Your task to perform on an android device: read, delete, or share a saved page in the chrome app Image 0: 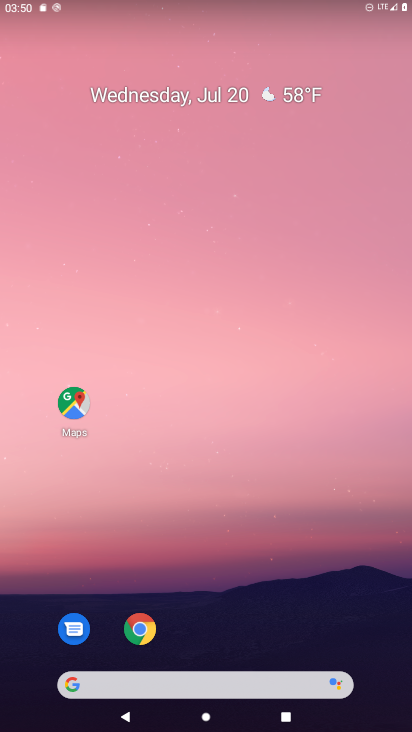
Step 0: drag from (344, 580) to (356, 51)
Your task to perform on an android device: read, delete, or share a saved page in the chrome app Image 1: 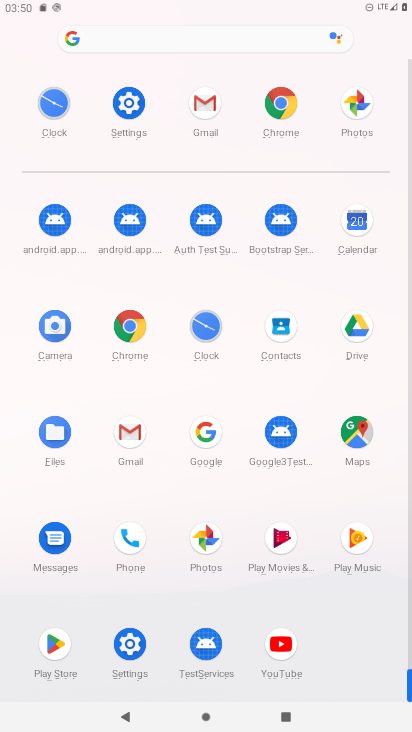
Step 1: click (123, 319)
Your task to perform on an android device: read, delete, or share a saved page in the chrome app Image 2: 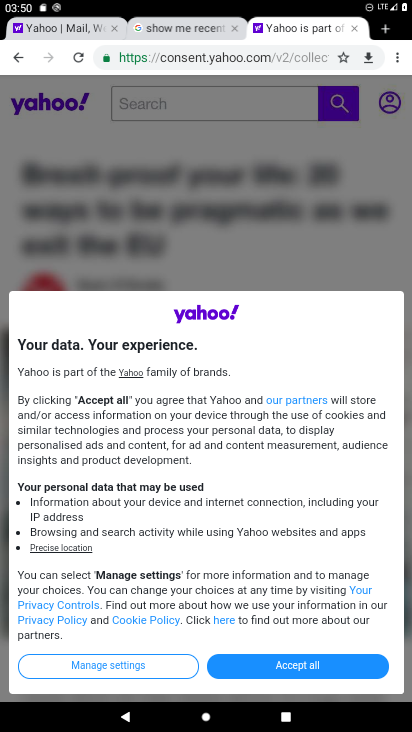
Step 2: drag from (299, 482) to (317, 141)
Your task to perform on an android device: read, delete, or share a saved page in the chrome app Image 3: 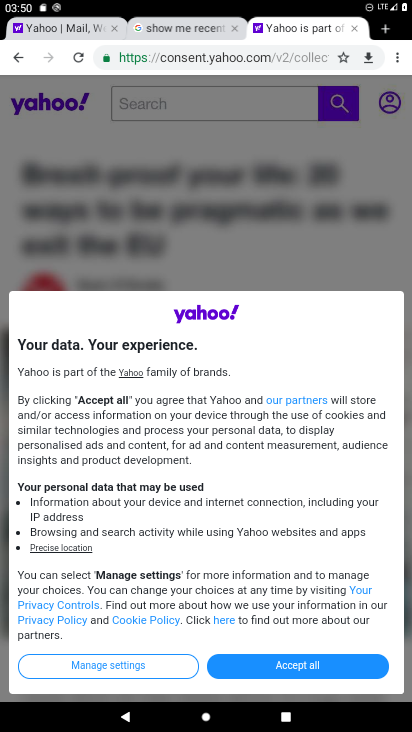
Step 3: click (339, 56)
Your task to perform on an android device: read, delete, or share a saved page in the chrome app Image 4: 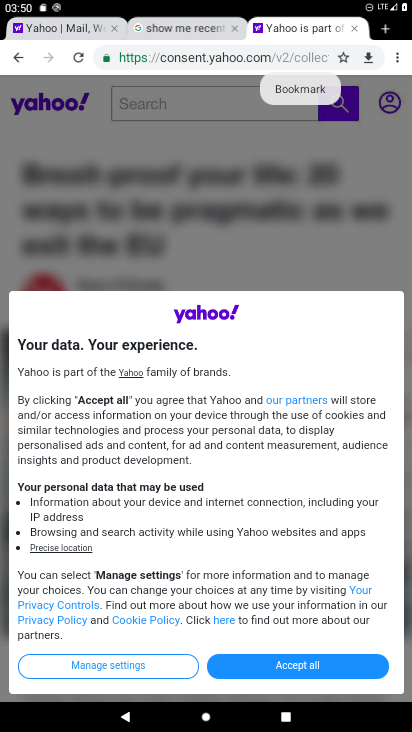
Step 4: click (339, 56)
Your task to perform on an android device: read, delete, or share a saved page in the chrome app Image 5: 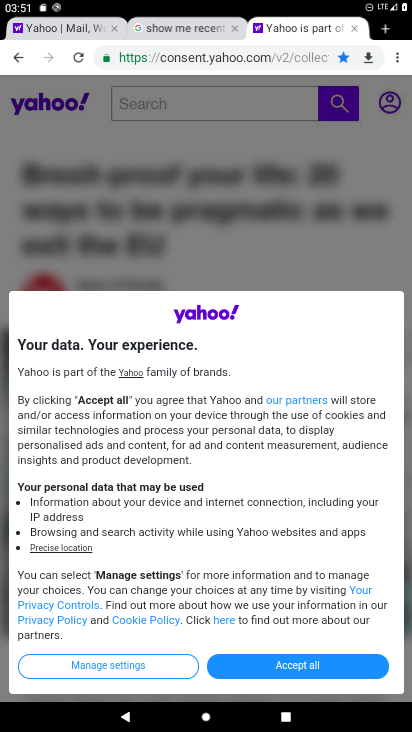
Step 5: click (351, 54)
Your task to perform on an android device: read, delete, or share a saved page in the chrome app Image 6: 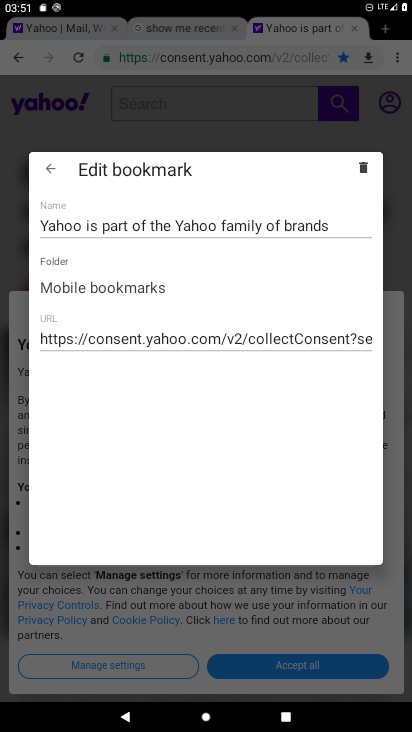
Step 6: click (360, 168)
Your task to perform on an android device: read, delete, or share a saved page in the chrome app Image 7: 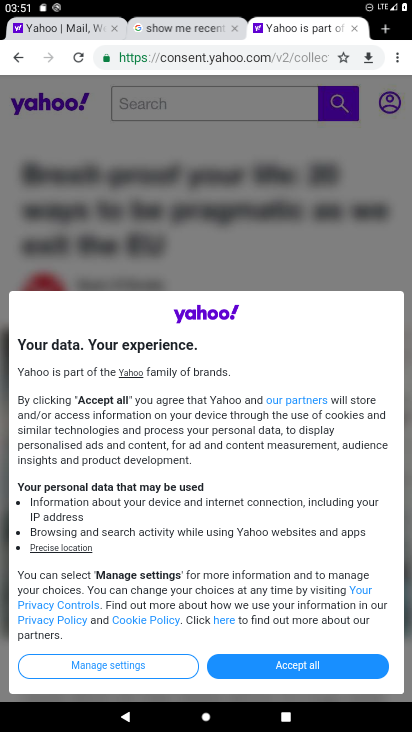
Step 7: task complete